Your task to perform on an android device: turn notification dots off Image 0: 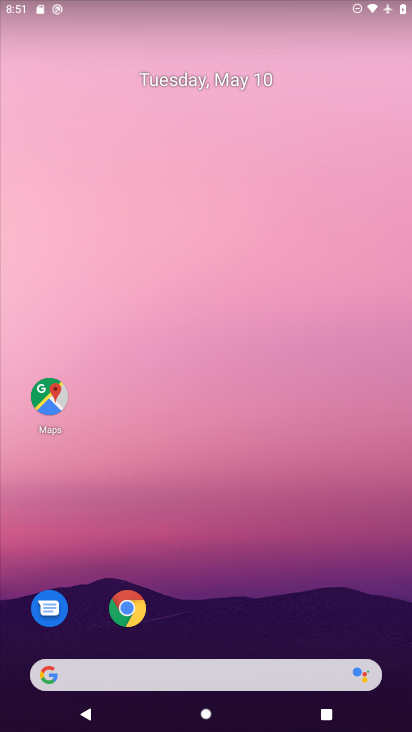
Step 0: drag from (332, 452) to (366, 259)
Your task to perform on an android device: turn notification dots off Image 1: 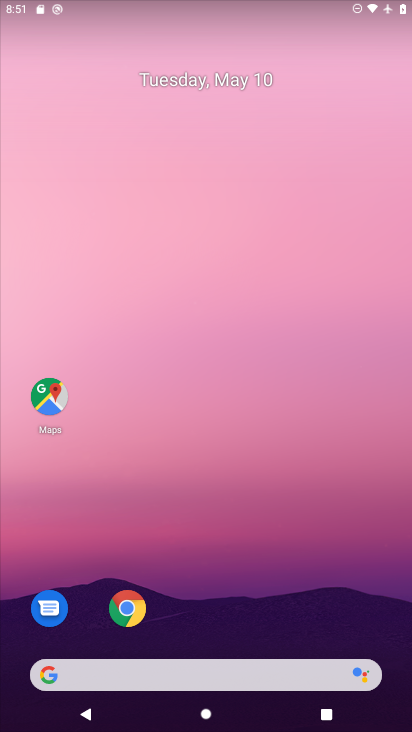
Step 1: drag from (211, 578) to (232, 170)
Your task to perform on an android device: turn notification dots off Image 2: 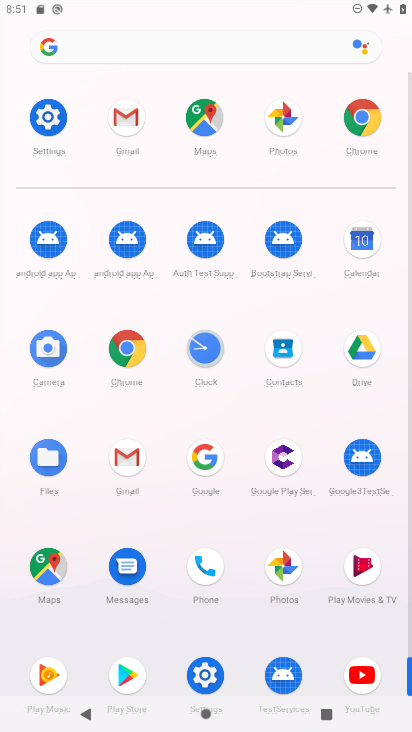
Step 2: click (44, 103)
Your task to perform on an android device: turn notification dots off Image 3: 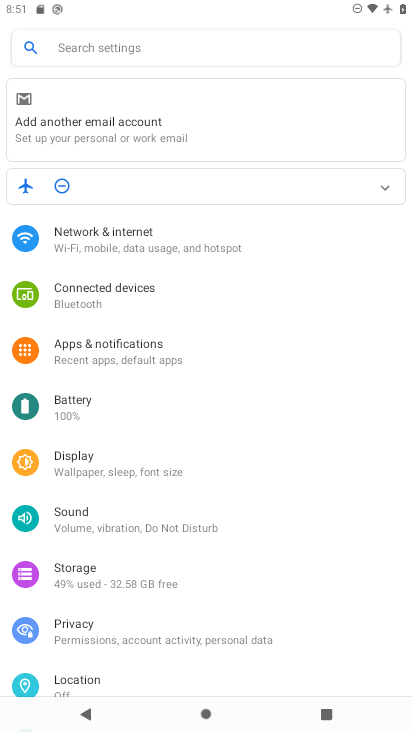
Step 3: click (147, 43)
Your task to perform on an android device: turn notification dots off Image 4: 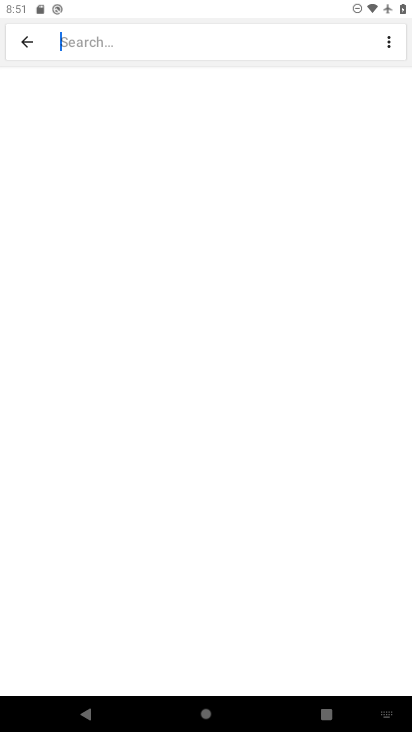
Step 4: click (207, 39)
Your task to perform on an android device: turn notification dots off Image 5: 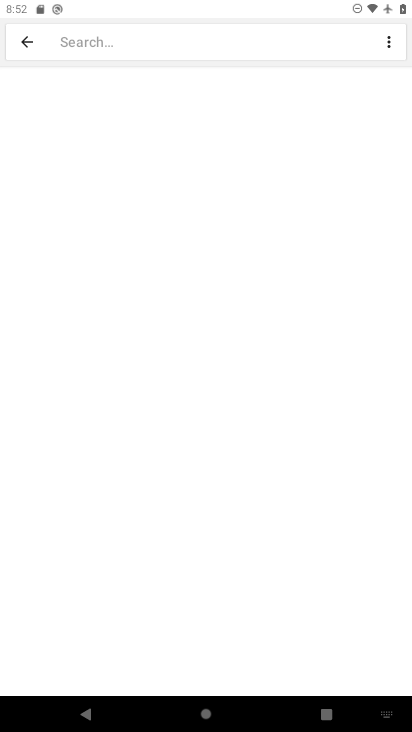
Step 5: click (190, 33)
Your task to perform on an android device: turn notification dots off Image 6: 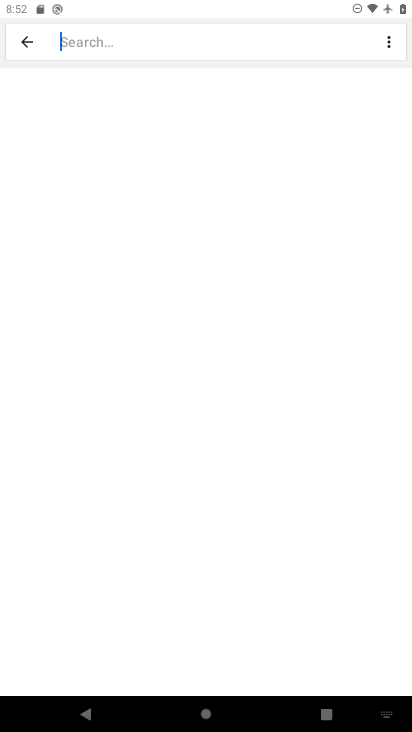
Step 6: type " notification dots "
Your task to perform on an android device: turn notification dots off Image 7: 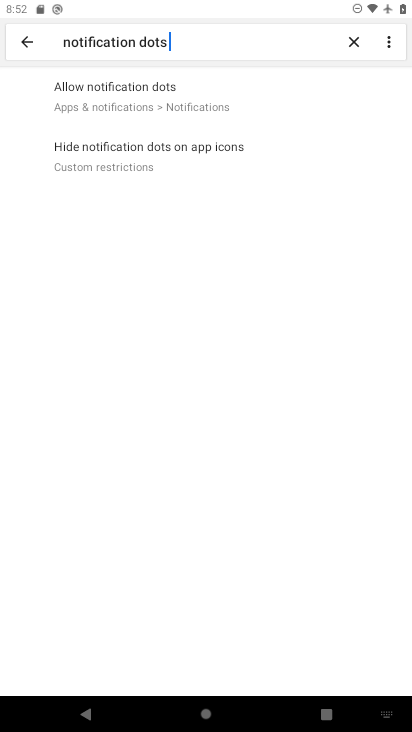
Step 7: drag from (212, 112) to (218, 189)
Your task to perform on an android device: turn notification dots off Image 8: 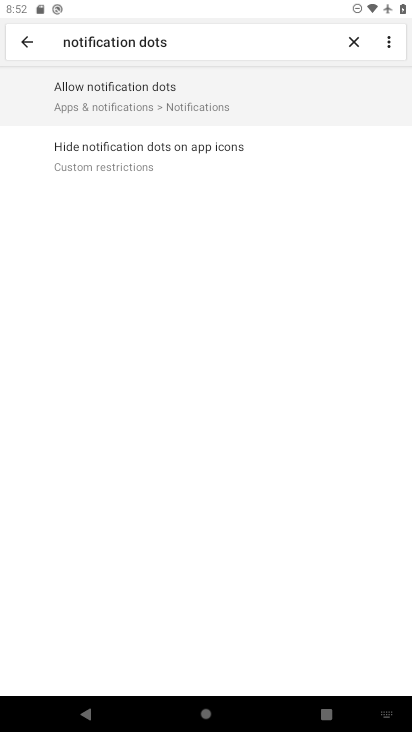
Step 8: click (199, 100)
Your task to perform on an android device: turn notification dots off Image 9: 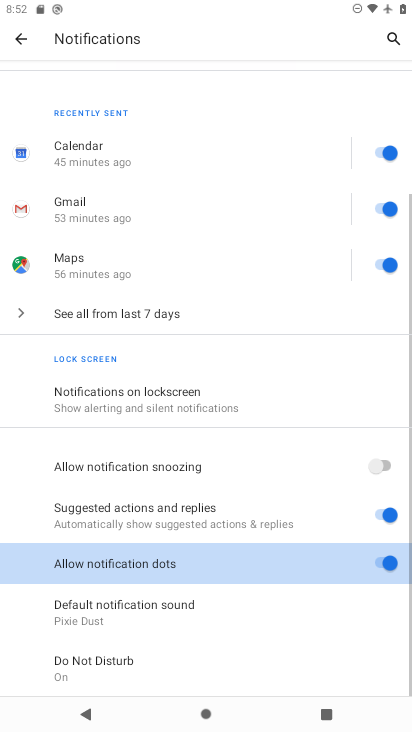
Step 9: click (379, 556)
Your task to perform on an android device: turn notification dots off Image 10: 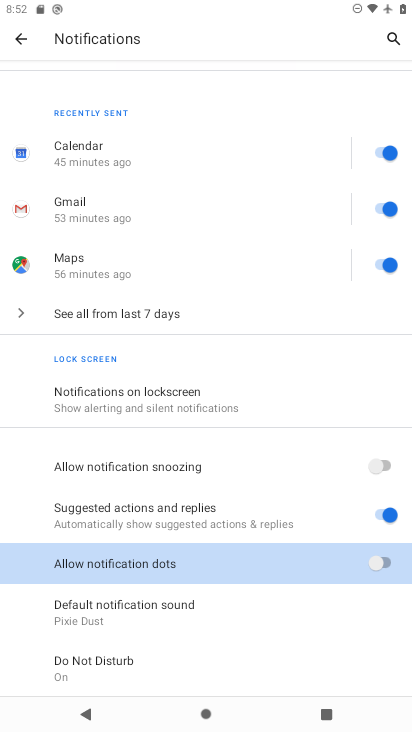
Step 10: task complete